Your task to perform on an android device: Go to location settings Image 0: 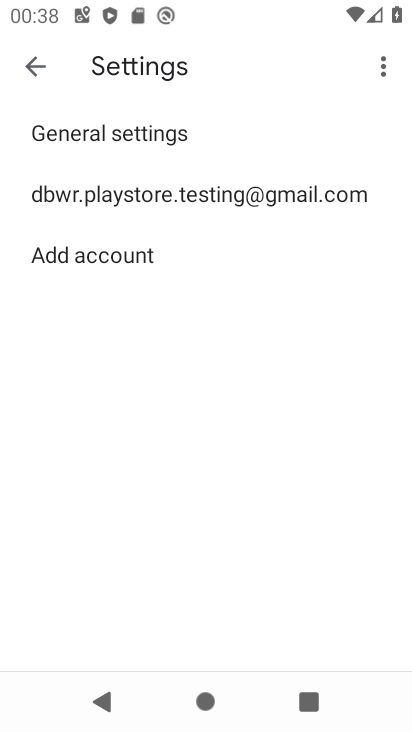
Step 0: press home button
Your task to perform on an android device: Go to location settings Image 1: 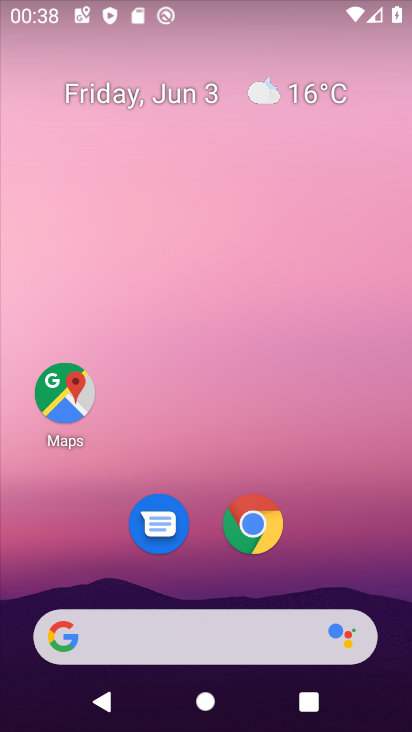
Step 1: drag from (212, 457) to (230, 0)
Your task to perform on an android device: Go to location settings Image 2: 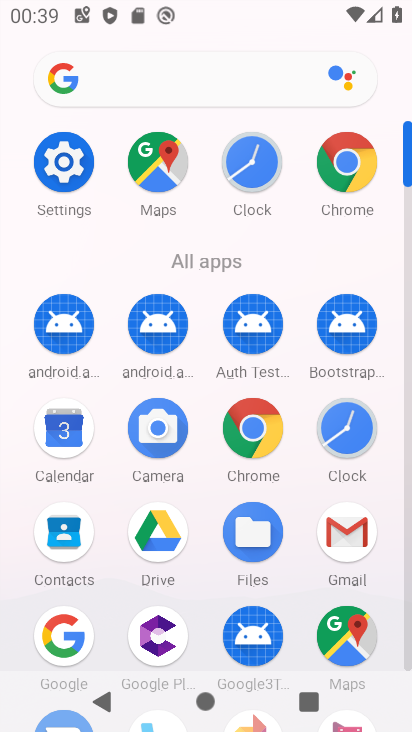
Step 2: click (75, 168)
Your task to perform on an android device: Go to location settings Image 3: 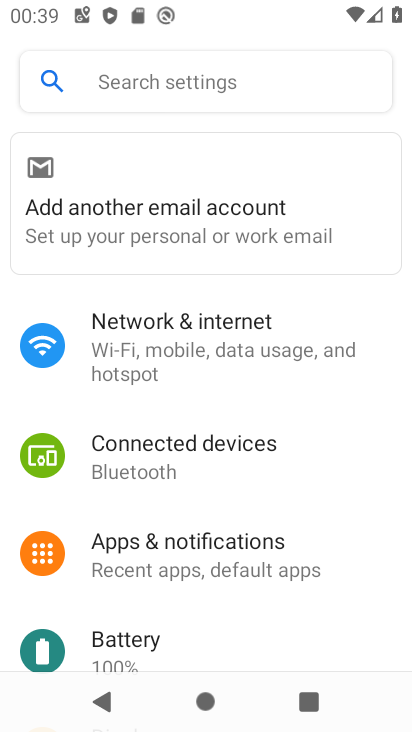
Step 3: drag from (216, 497) to (202, 108)
Your task to perform on an android device: Go to location settings Image 4: 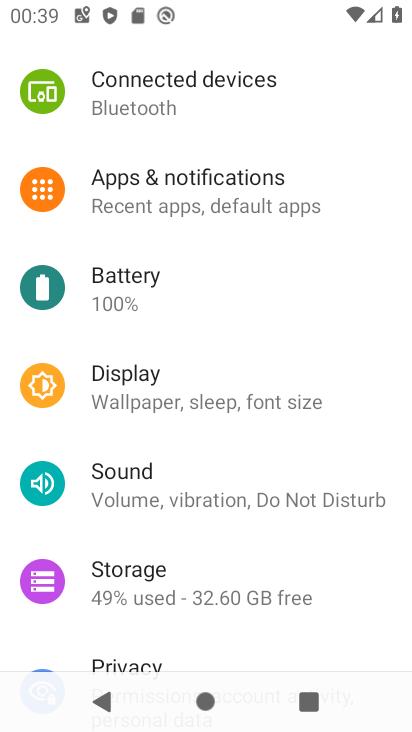
Step 4: drag from (223, 333) to (211, 45)
Your task to perform on an android device: Go to location settings Image 5: 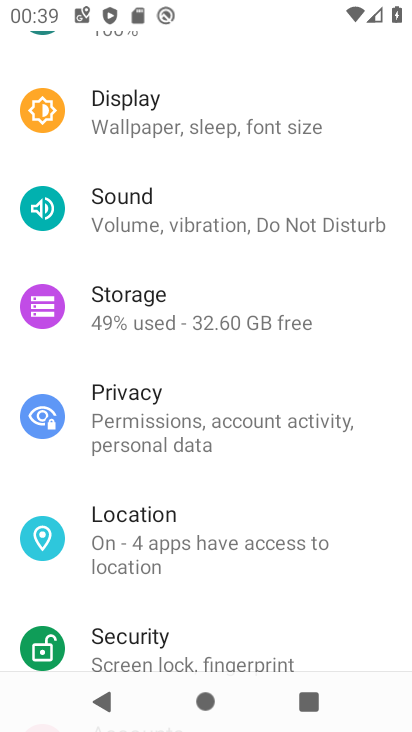
Step 5: click (218, 524)
Your task to perform on an android device: Go to location settings Image 6: 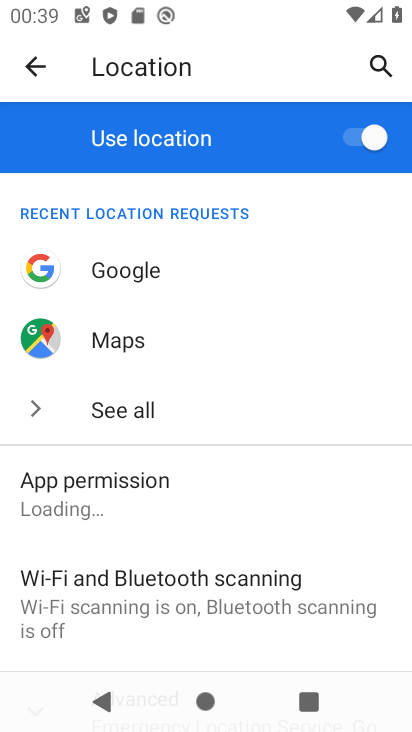
Step 6: task complete